Your task to perform on an android device: change keyboard looks Image 0: 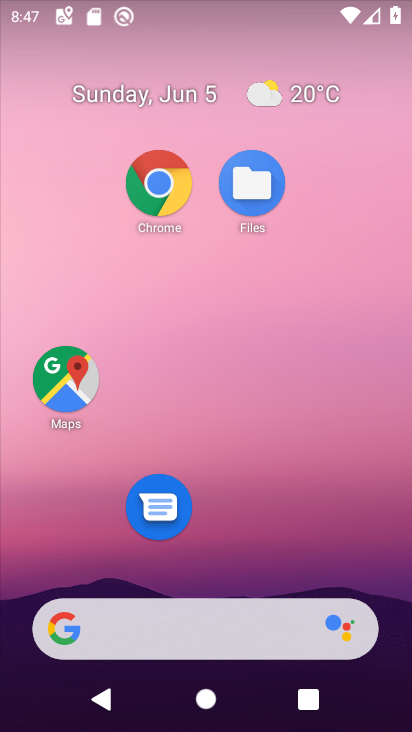
Step 0: drag from (246, 574) to (167, 45)
Your task to perform on an android device: change keyboard looks Image 1: 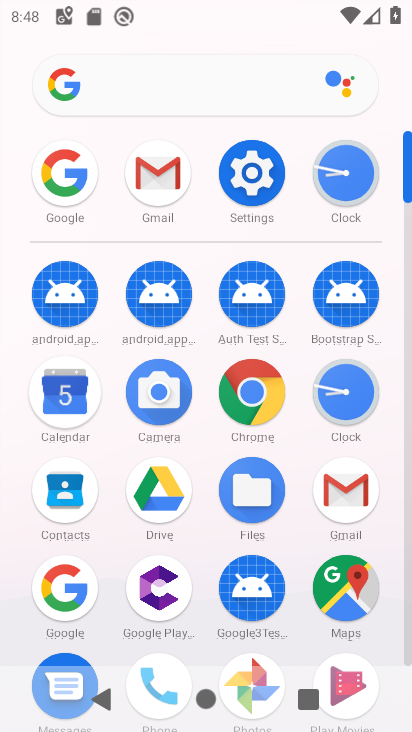
Step 1: click (258, 151)
Your task to perform on an android device: change keyboard looks Image 2: 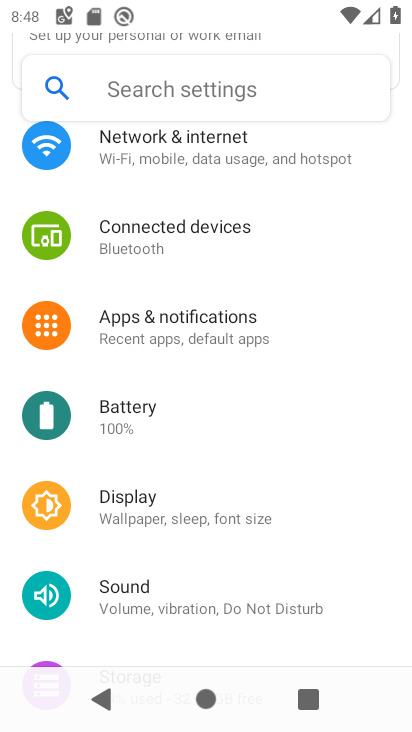
Step 2: drag from (231, 548) to (181, 100)
Your task to perform on an android device: change keyboard looks Image 3: 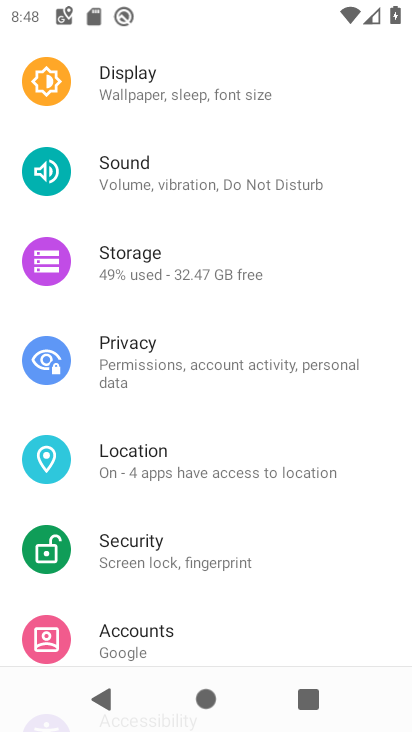
Step 3: drag from (195, 495) to (190, 140)
Your task to perform on an android device: change keyboard looks Image 4: 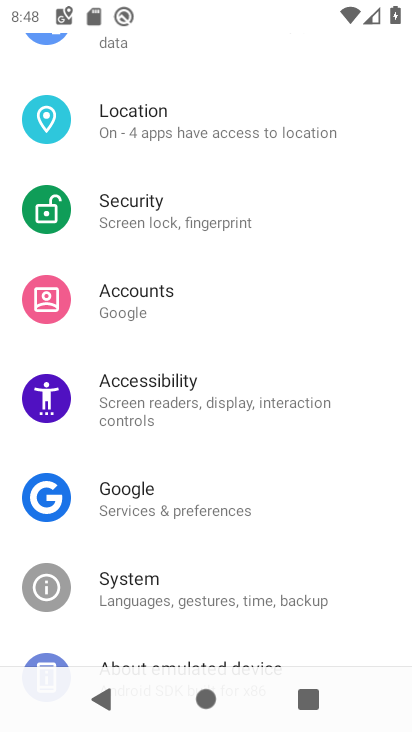
Step 4: click (190, 140)
Your task to perform on an android device: change keyboard looks Image 5: 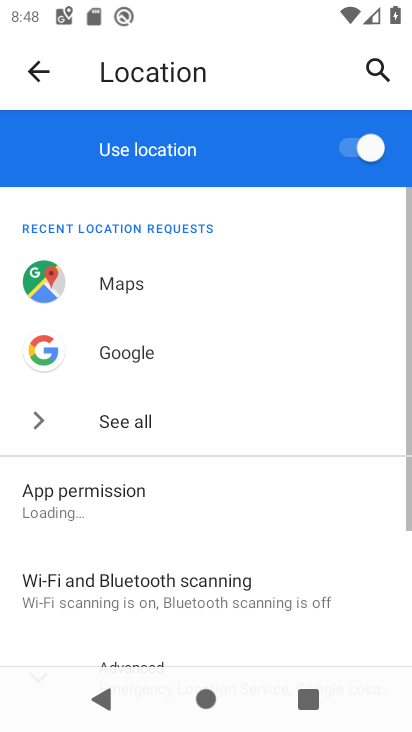
Step 5: click (177, 580)
Your task to perform on an android device: change keyboard looks Image 6: 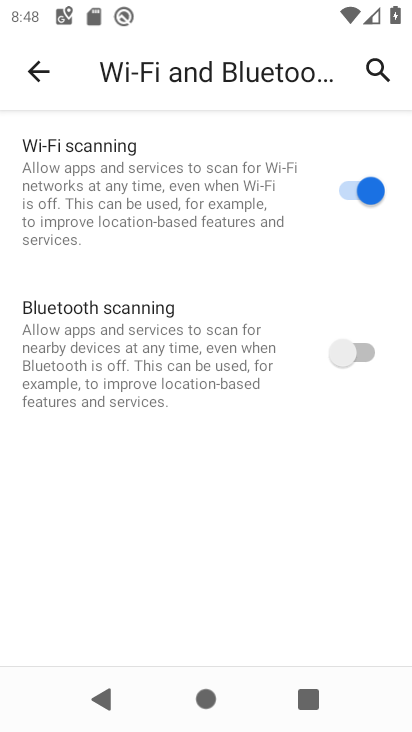
Step 6: click (40, 64)
Your task to perform on an android device: change keyboard looks Image 7: 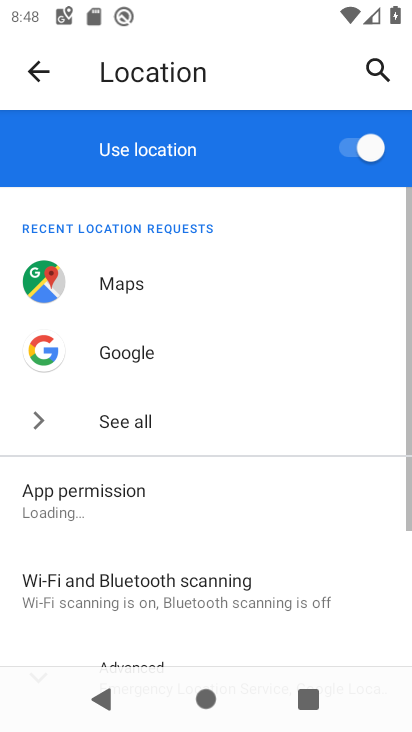
Step 7: click (40, 64)
Your task to perform on an android device: change keyboard looks Image 8: 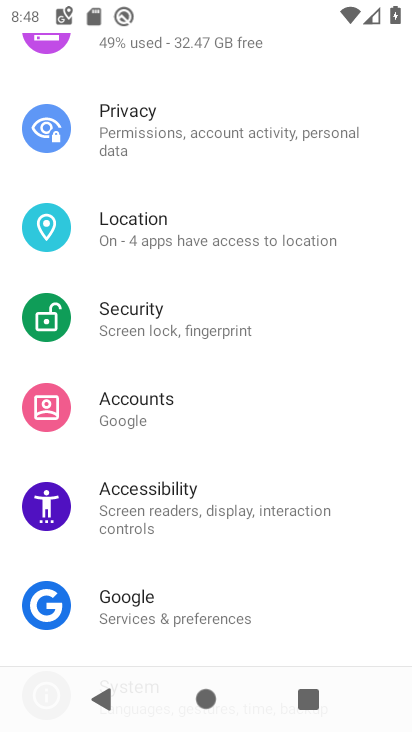
Step 8: drag from (105, 652) to (137, 318)
Your task to perform on an android device: change keyboard looks Image 9: 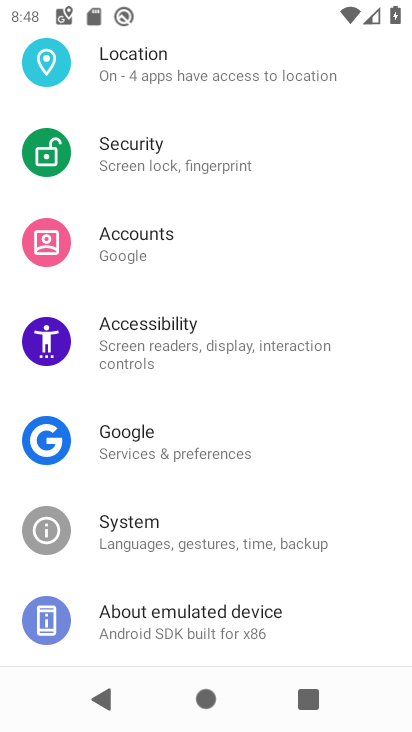
Step 9: click (153, 517)
Your task to perform on an android device: change keyboard looks Image 10: 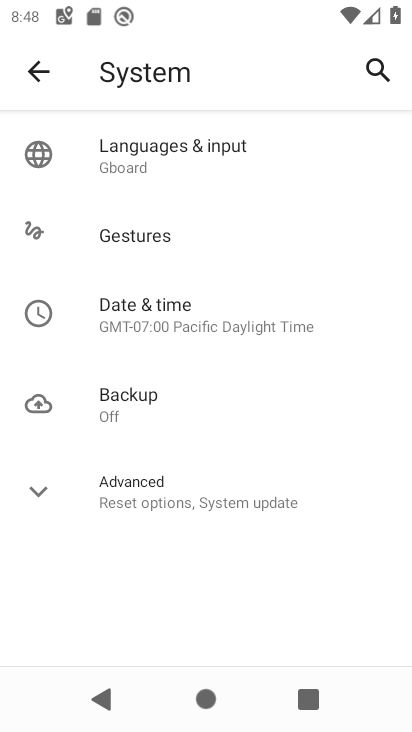
Step 10: click (130, 141)
Your task to perform on an android device: change keyboard looks Image 11: 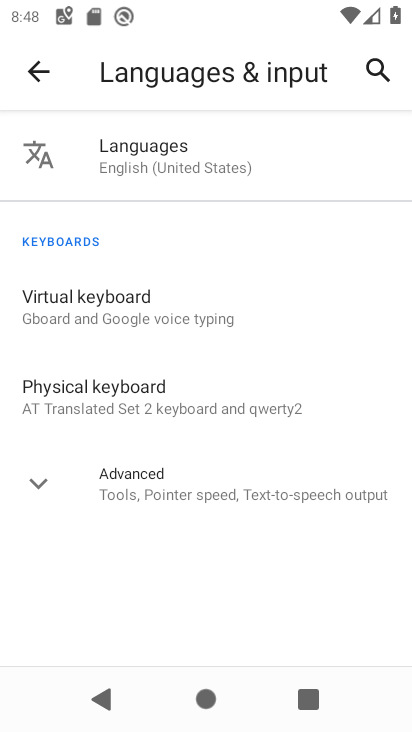
Step 11: click (133, 286)
Your task to perform on an android device: change keyboard looks Image 12: 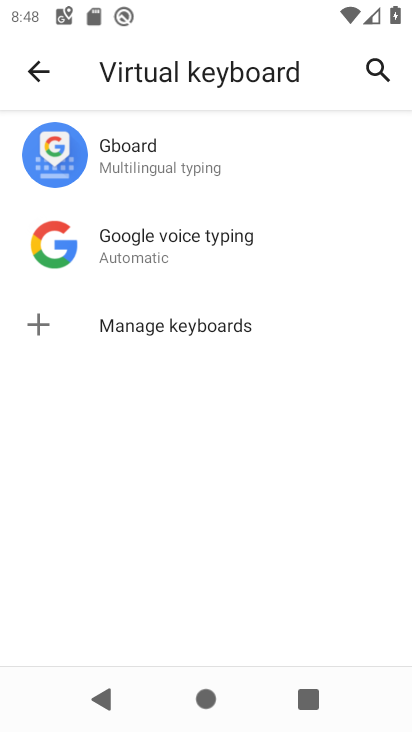
Step 12: click (139, 136)
Your task to perform on an android device: change keyboard looks Image 13: 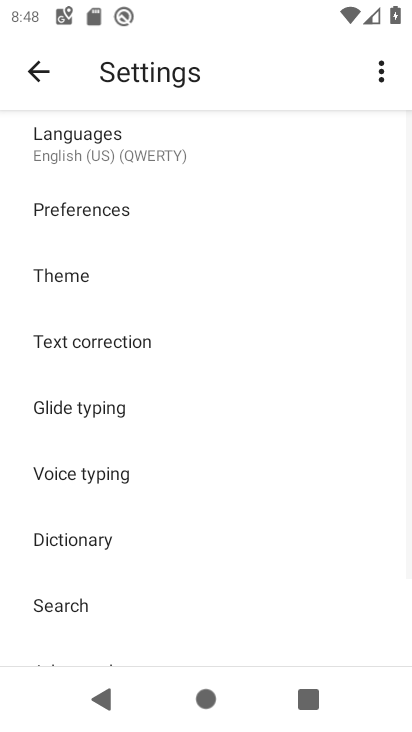
Step 13: click (4, 271)
Your task to perform on an android device: change keyboard looks Image 14: 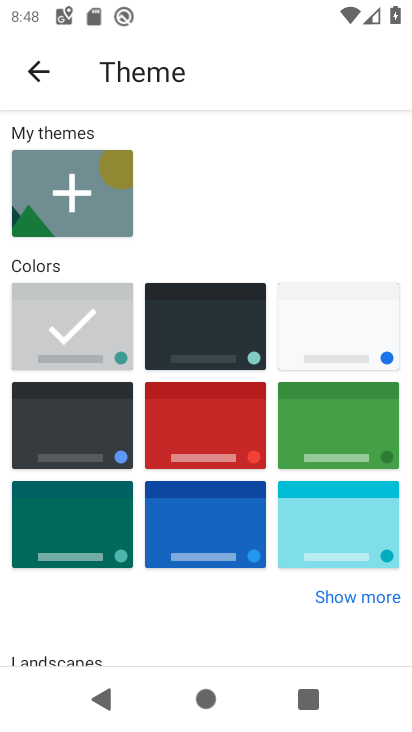
Step 14: click (175, 422)
Your task to perform on an android device: change keyboard looks Image 15: 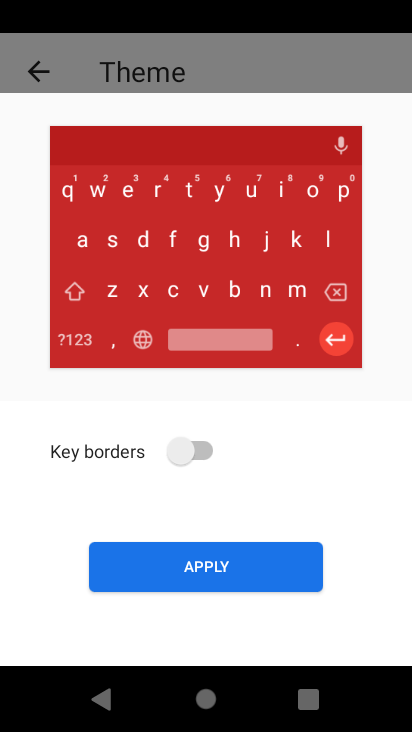
Step 15: click (201, 585)
Your task to perform on an android device: change keyboard looks Image 16: 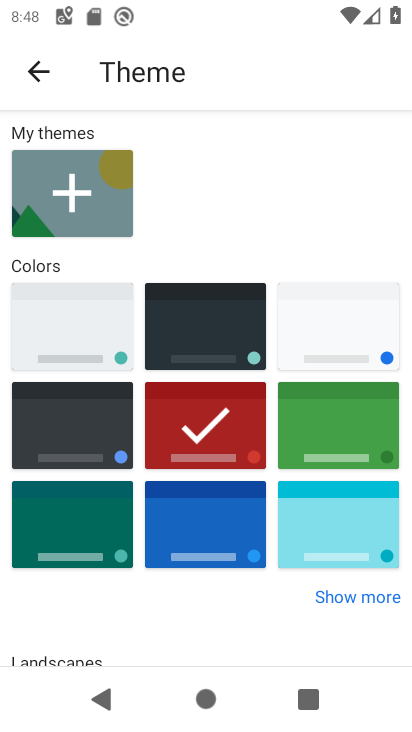
Step 16: task complete